Your task to perform on an android device: What's on my calendar tomorrow? Image 0: 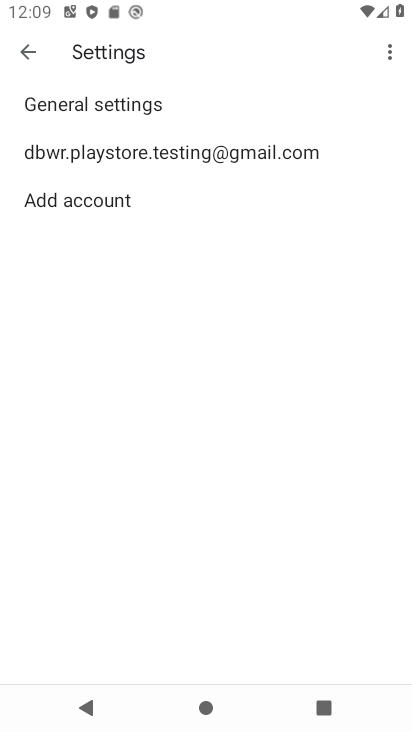
Step 0: press home button
Your task to perform on an android device: What's on my calendar tomorrow? Image 1: 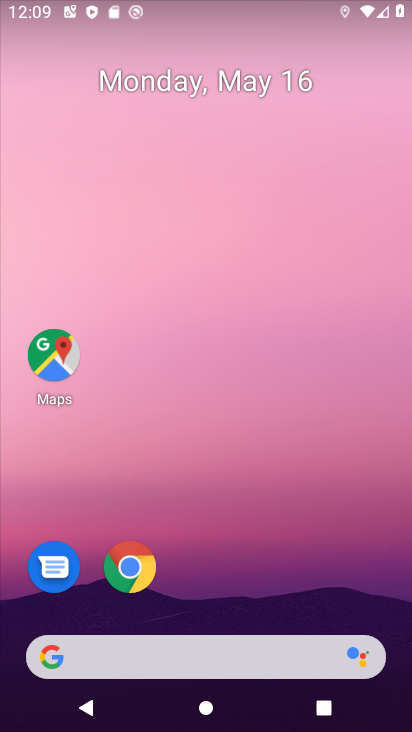
Step 1: drag from (240, 579) to (251, 143)
Your task to perform on an android device: What's on my calendar tomorrow? Image 2: 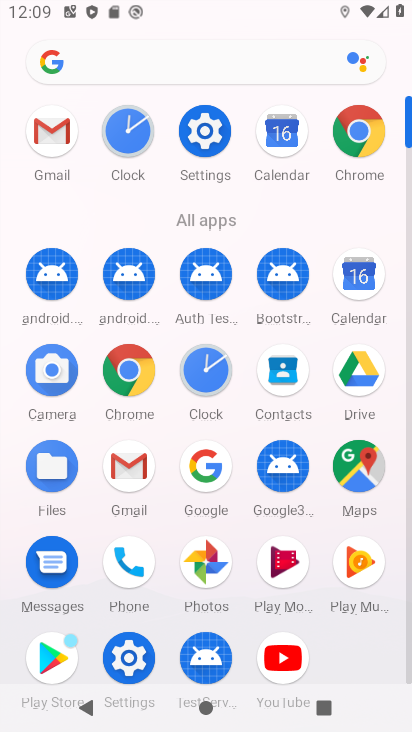
Step 2: click (364, 276)
Your task to perform on an android device: What's on my calendar tomorrow? Image 3: 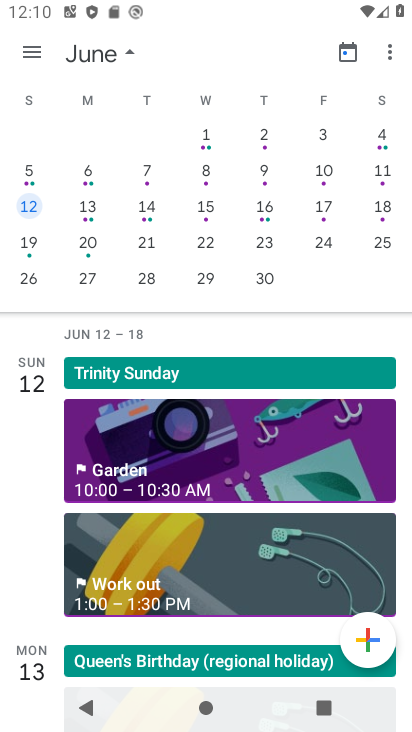
Step 3: drag from (43, 190) to (358, 134)
Your task to perform on an android device: What's on my calendar tomorrow? Image 4: 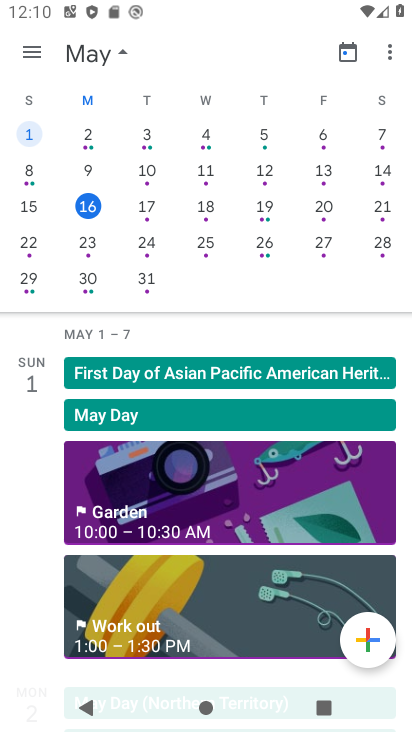
Step 4: click (138, 207)
Your task to perform on an android device: What's on my calendar tomorrow? Image 5: 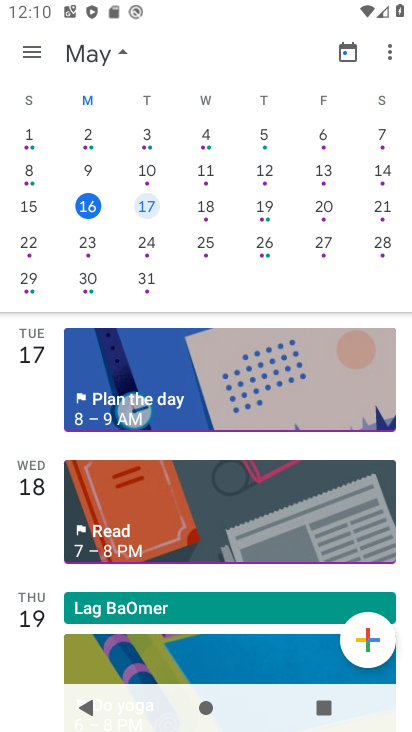
Step 5: task complete